Your task to perform on an android device: Go to Amazon Image 0: 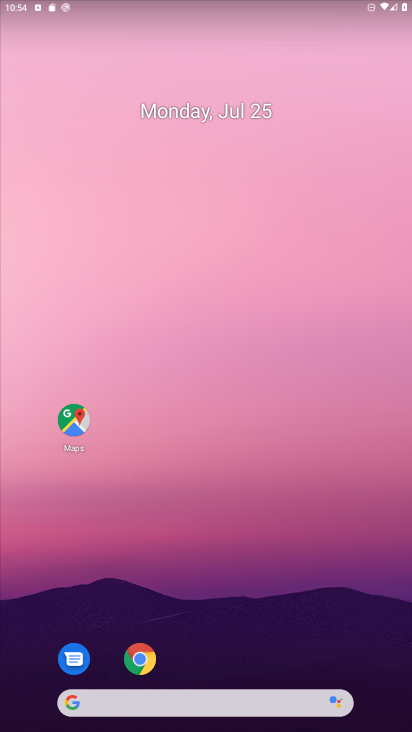
Step 0: click (135, 657)
Your task to perform on an android device: Go to Amazon Image 1: 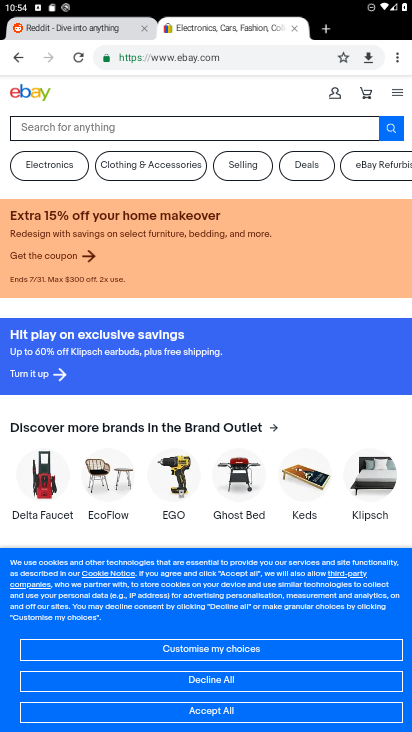
Step 1: click (324, 32)
Your task to perform on an android device: Go to Amazon Image 2: 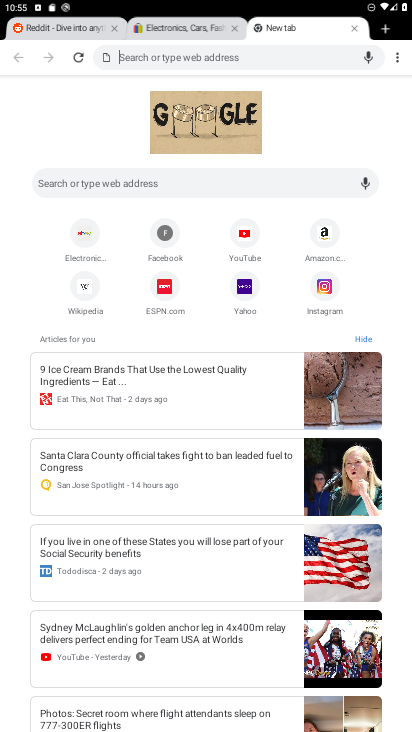
Step 2: click (321, 255)
Your task to perform on an android device: Go to Amazon Image 3: 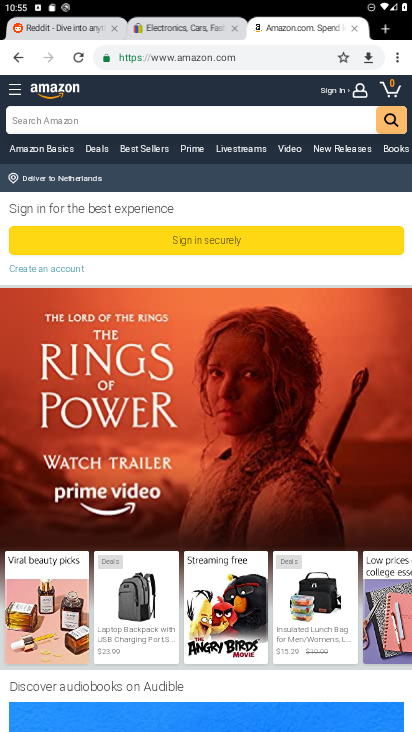
Step 3: task complete